Your task to perform on an android device: turn off location history Image 0: 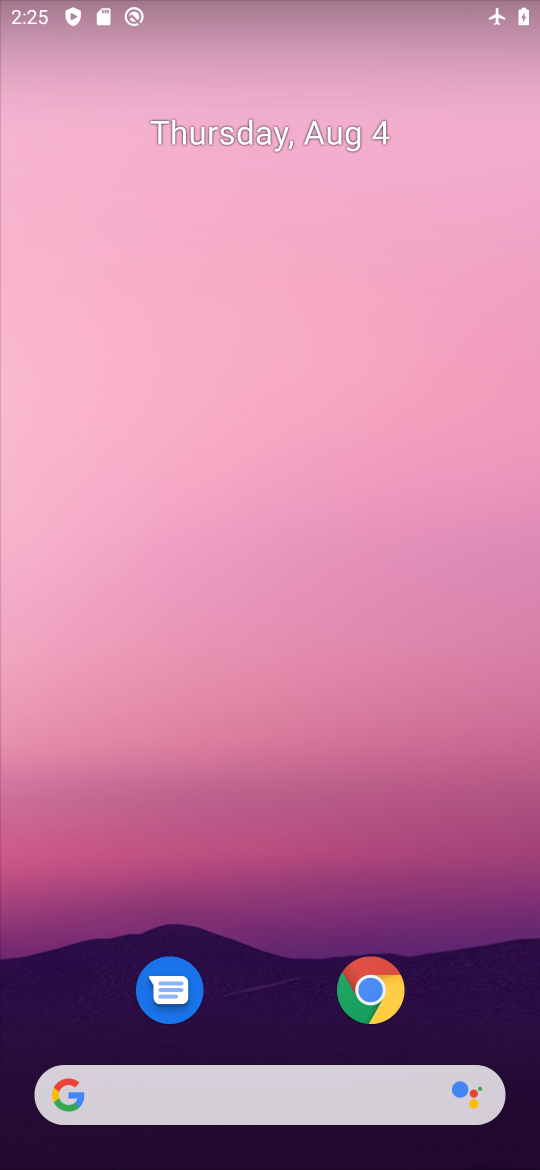
Step 0: drag from (296, 1042) to (292, 219)
Your task to perform on an android device: turn off location history Image 1: 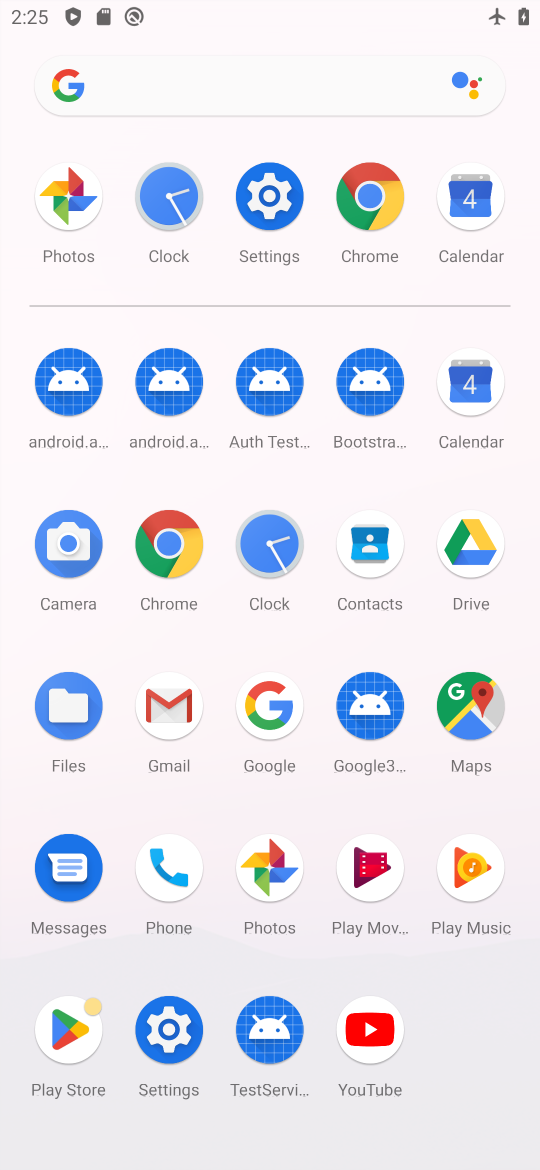
Step 1: click (286, 212)
Your task to perform on an android device: turn off location history Image 2: 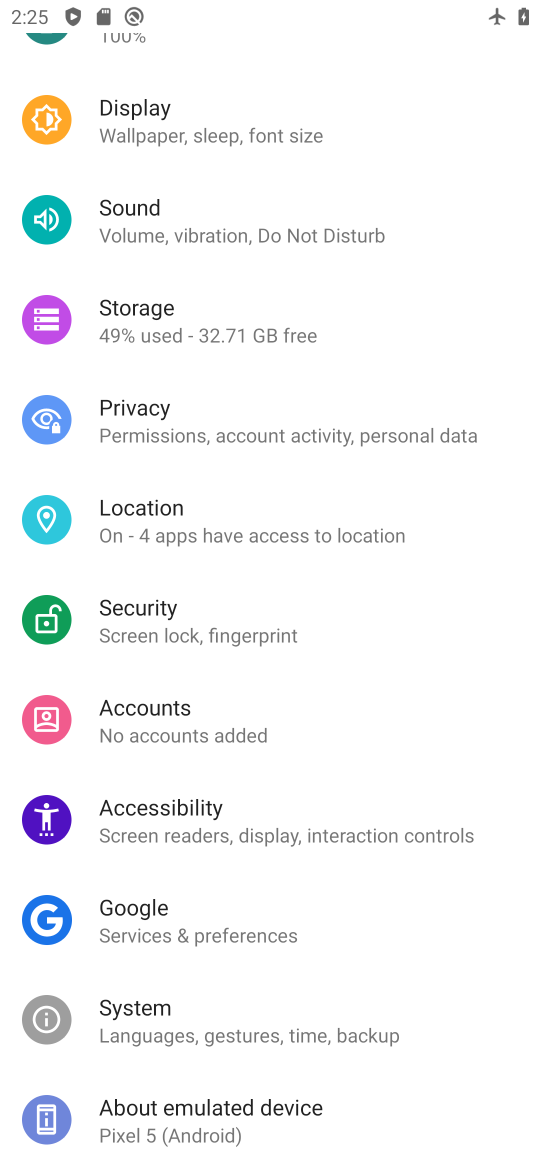
Step 2: click (268, 548)
Your task to perform on an android device: turn off location history Image 3: 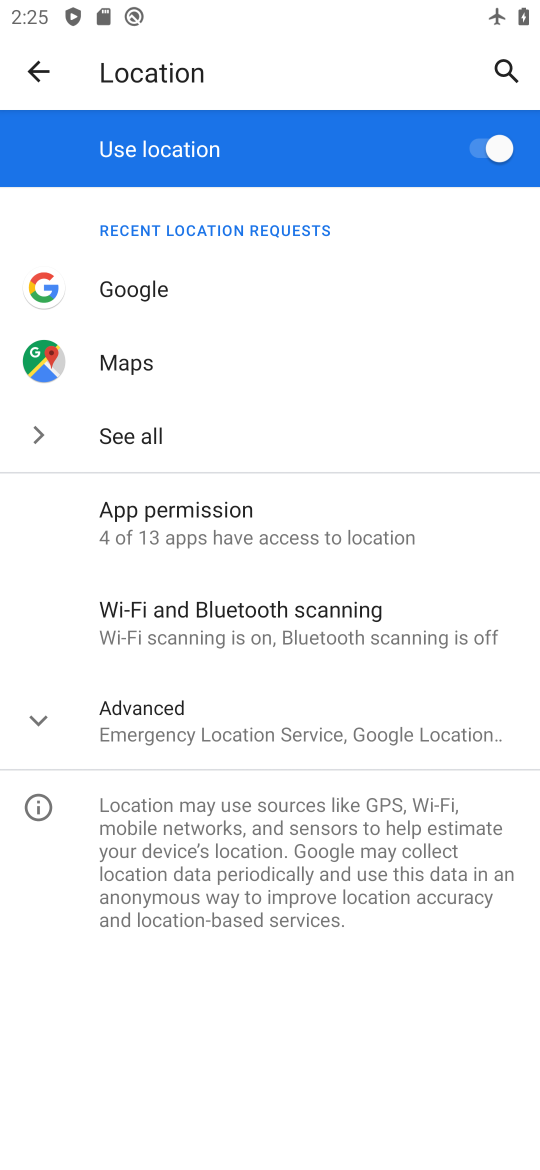
Step 3: click (493, 139)
Your task to perform on an android device: turn off location history Image 4: 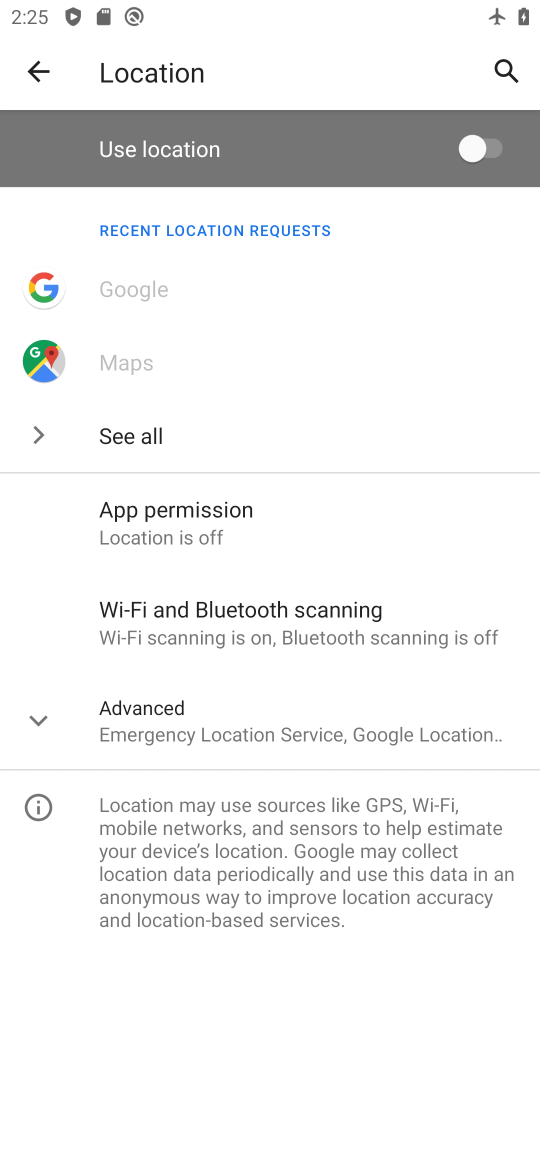
Step 4: task complete